Your task to perform on an android device: Check the weather Image 0: 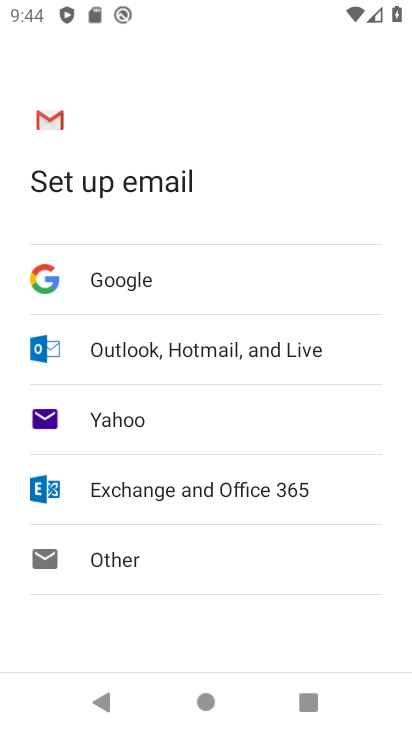
Step 0: press back button
Your task to perform on an android device: Check the weather Image 1: 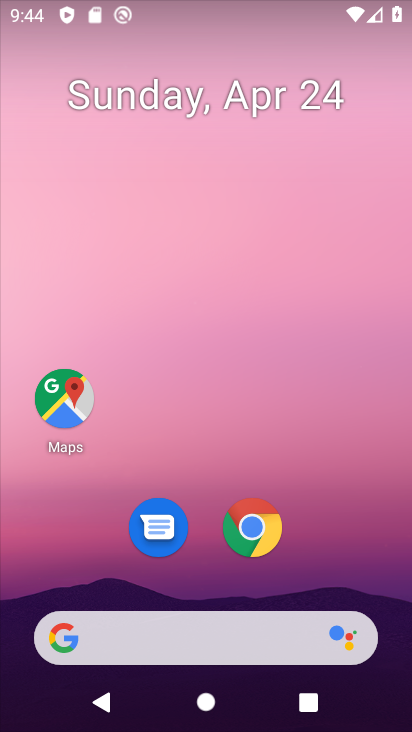
Step 1: click (180, 643)
Your task to perform on an android device: Check the weather Image 2: 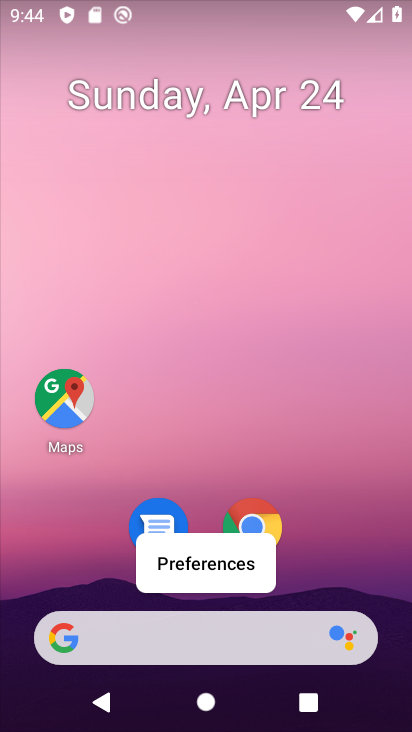
Step 2: click (207, 645)
Your task to perform on an android device: Check the weather Image 3: 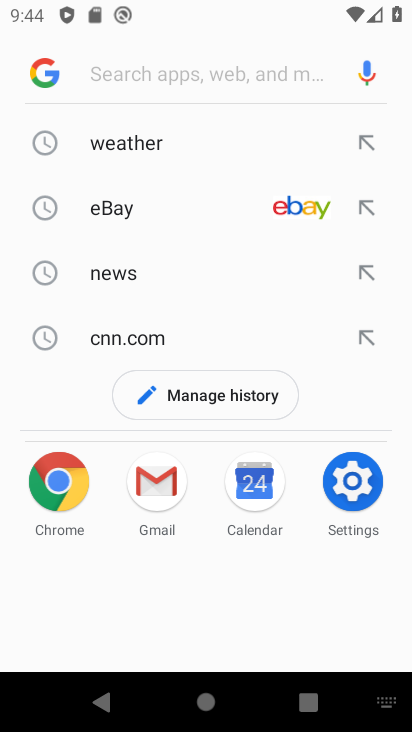
Step 3: click (88, 140)
Your task to perform on an android device: Check the weather Image 4: 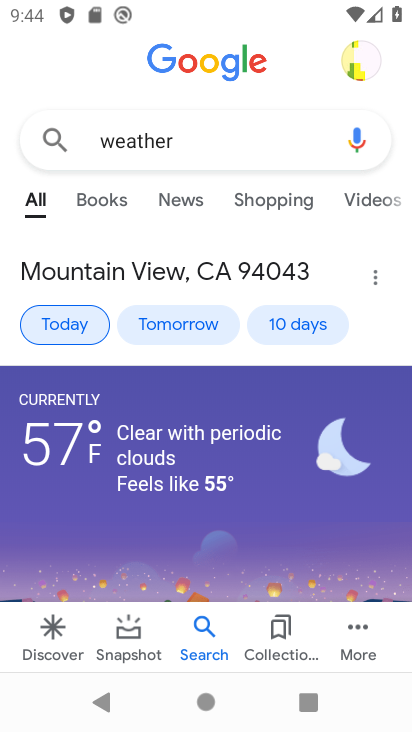
Step 4: task complete